Your task to perform on an android device: turn off location history Image 0: 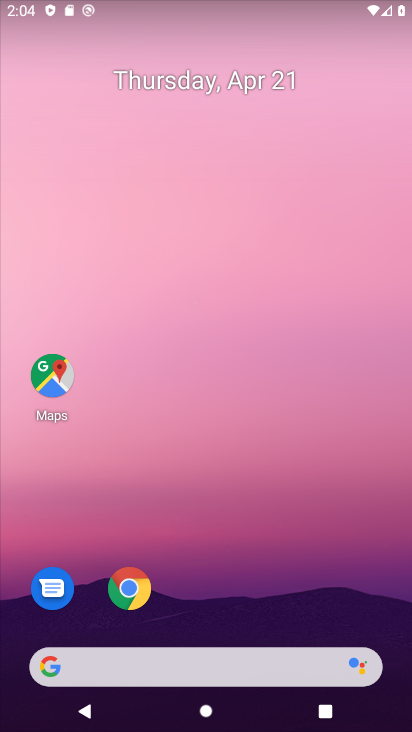
Step 0: drag from (274, 547) to (280, 5)
Your task to perform on an android device: turn off location history Image 1: 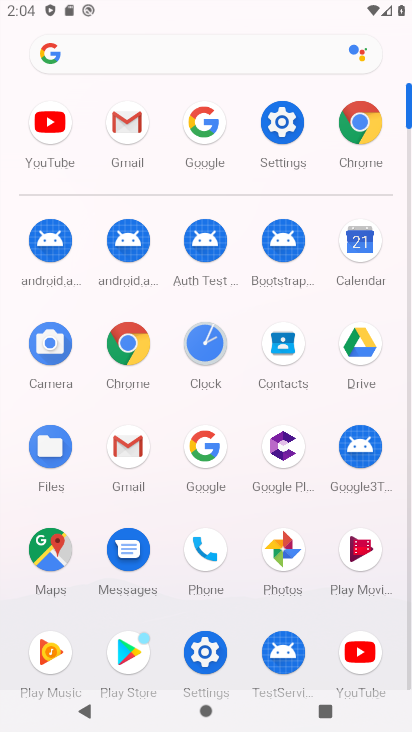
Step 1: click (280, 141)
Your task to perform on an android device: turn off location history Image 2: 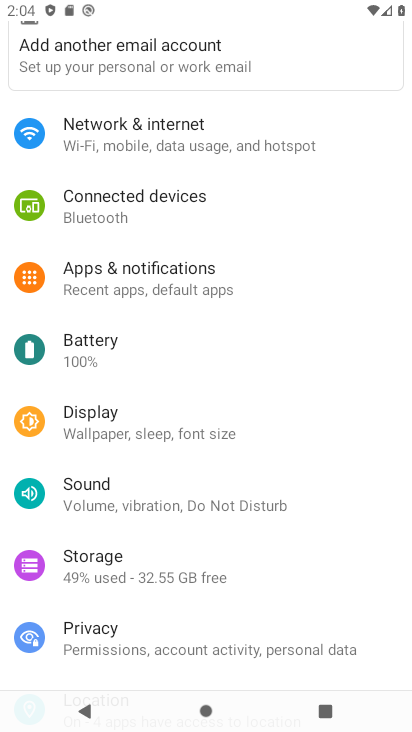
Step 2: drag from (155, 525) to (219, 187)
Your task to perform on an android device: turn off location history Image 3: 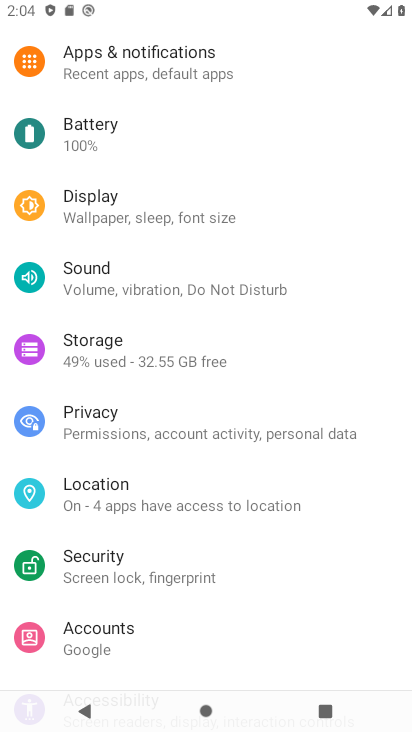
Step 3: click (186, 505)
Your task to perform on an android device: turn off location history Image 4: 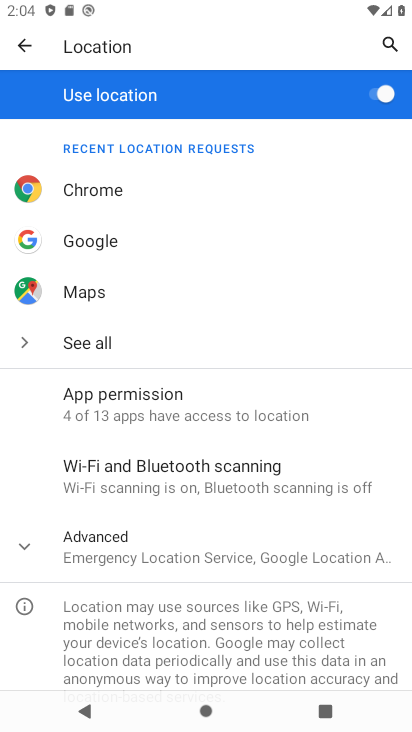
Step 4: click (186, 505)
Your task to perform on an android device: turn off location history Image 5: 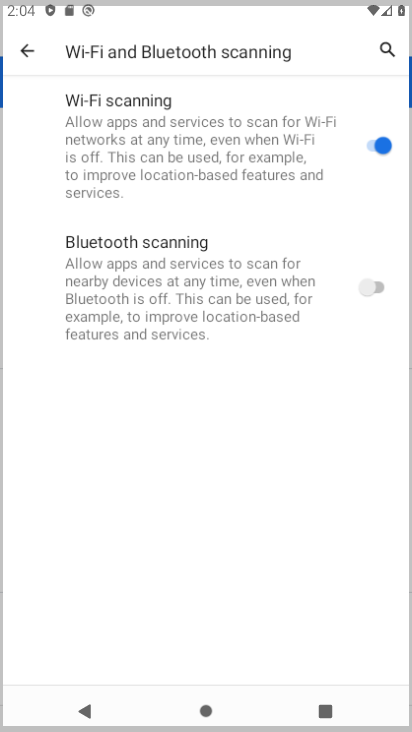
Step 5: click (181, 526)
Your task to perform on an android device: turn off location history Image 6: 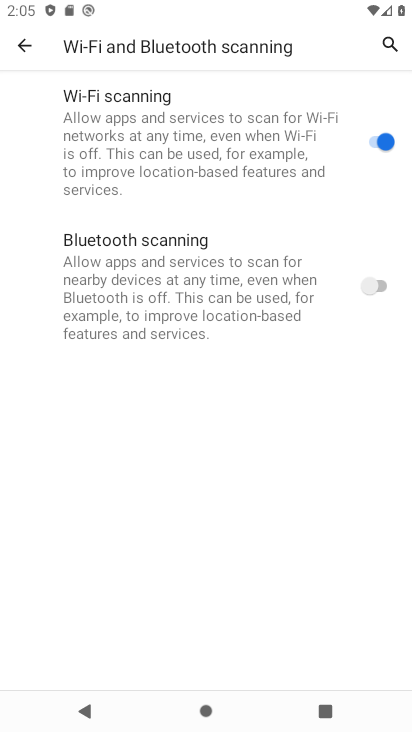
Step 6: task complete